Your task to perform on an android device: turn off picture-in-picture Image 0: 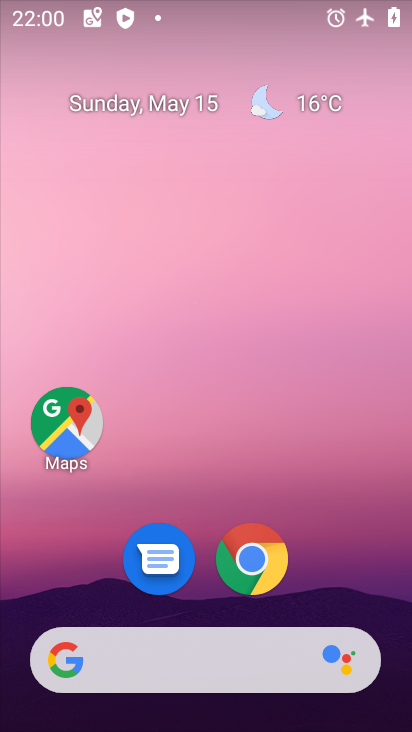
Step 0: drag from (275, 448) to (151, 90)
Your task to perform on an android device: turn off picture-in-picture Image 1: 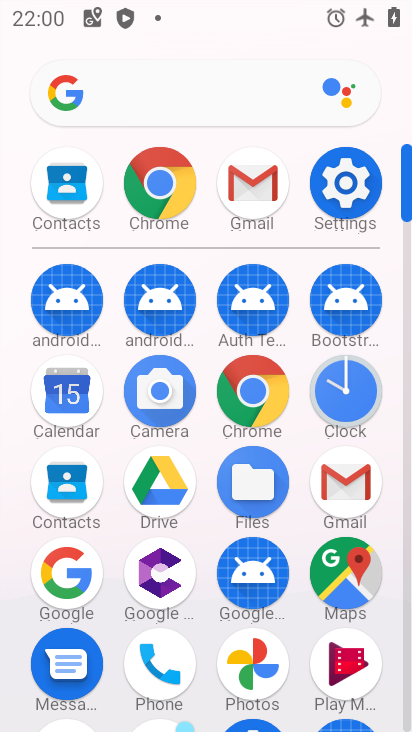
Step 1: click (346, 186)
Your task to perform on an android device: turn off picture-in-picture Image 2: 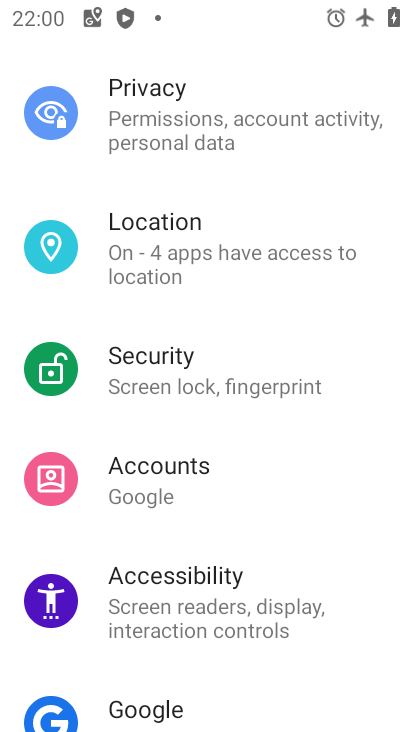
Step 2: drag from (232, 461) to (192, 238)
Your task to perform on an android device: turn off picture-in-picture Image 3: 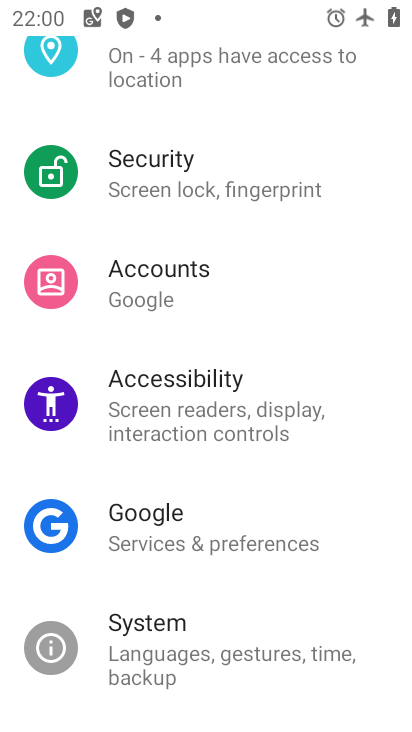
Step 3: drag from (241, 480) to (170, 189)
Your task to perform on an android device: turn off picture-in-picture Image 4: 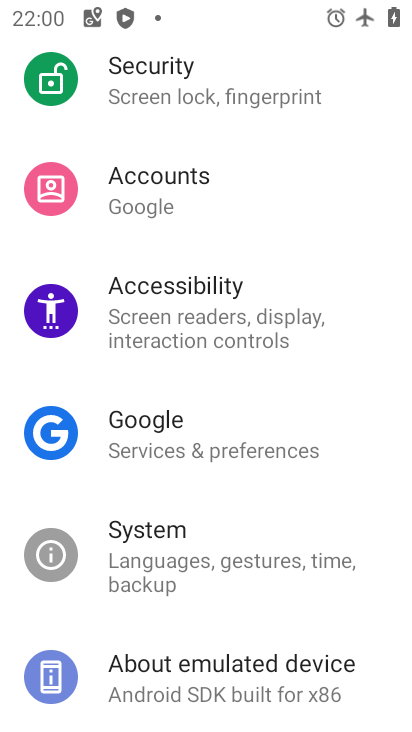
Step 4: drag from (211, 241) to (245, 690)
Your task to perform on an android device: turn off picture-in-picture Image 5: 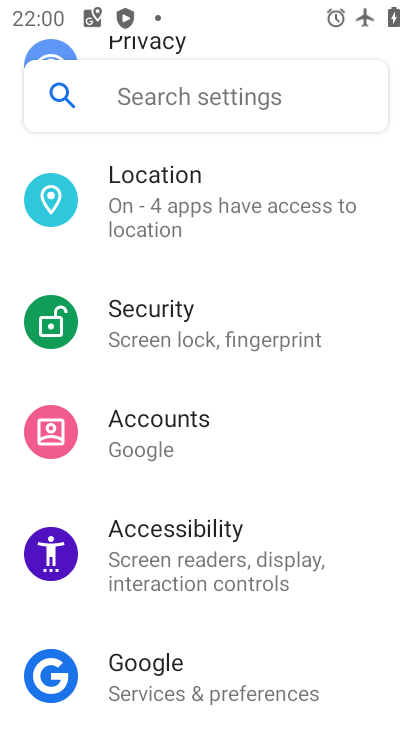
Step 5: drag from (185, 717) to (9, 624)
Your task to perform on an android device: turn off picture-in-picture Image 6: 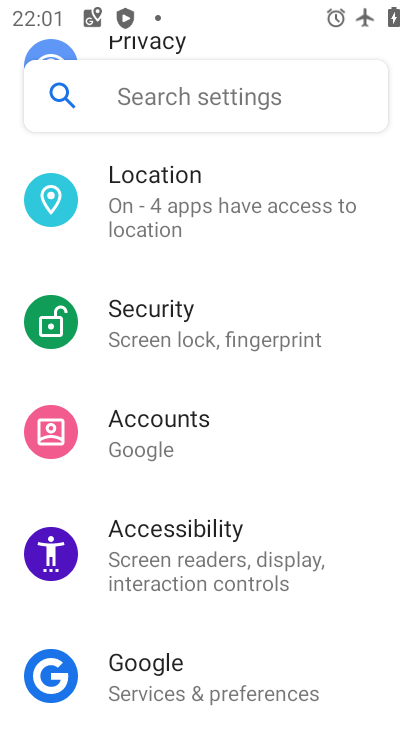
Step 6: drag from (246, 272) to (238, 723)
Your task to perform on an android device: turn off picture-in-picture Image 7: 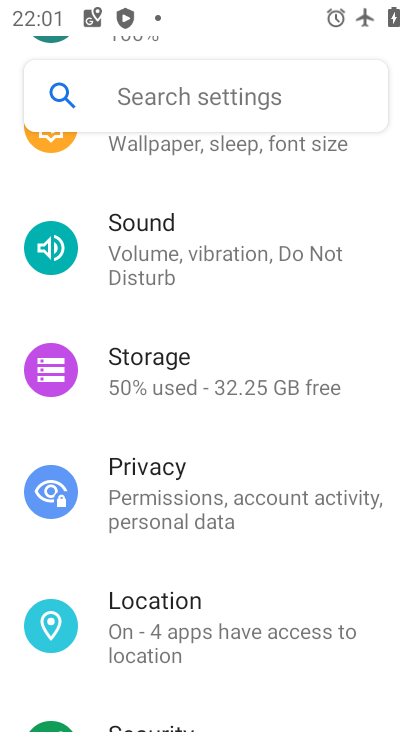
Step 7: drag from (219, 312) to (193, 705)
Your task to perform on an android device: turn off picture-in-picture Image 8: 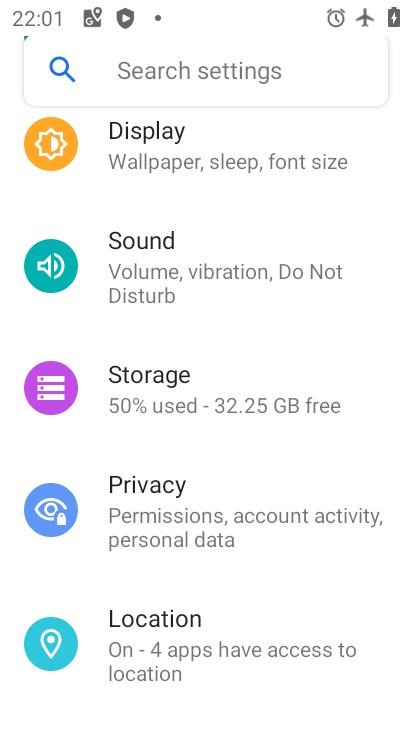
Step 8: drag from (205, 201) to (150, 688)
Your task to perform on an android device: turn off picture-in-picture Image 9: 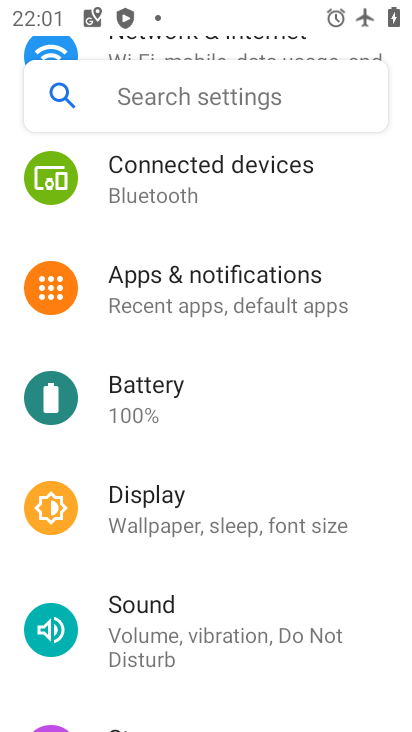
Step 9: click (186, 270)
Your task to perform on an android device: turn off picture-in-picture Image 10: 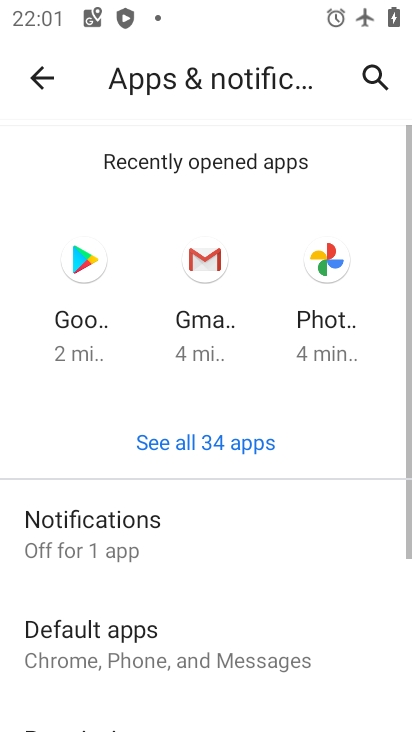
Step 10: drag from (170, 554) to (101, 197)
Your task to perform on an android device: turn off picture-in-picture Image 11: 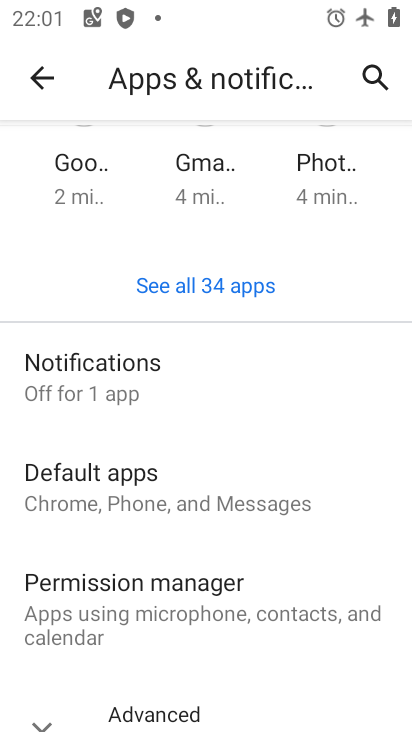
Step 11: drag from (174, 667) to (121, 364)
Your task to perform on an android device: turn off picture-in-picture Image 12: 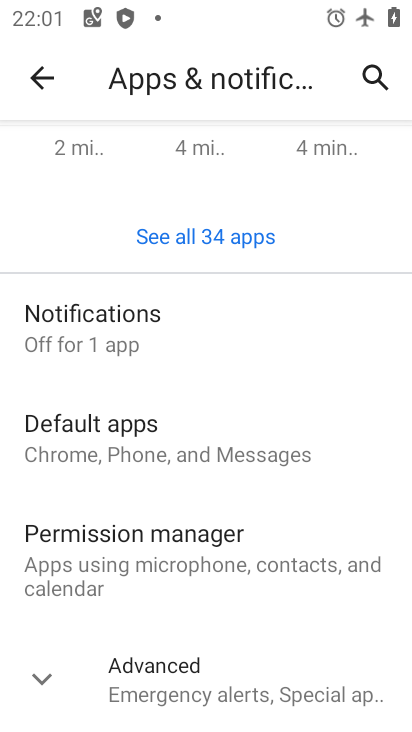
Step 12: click (53, 671)
Your task to perform on an android device: turn off picture-in-picture Image 13: 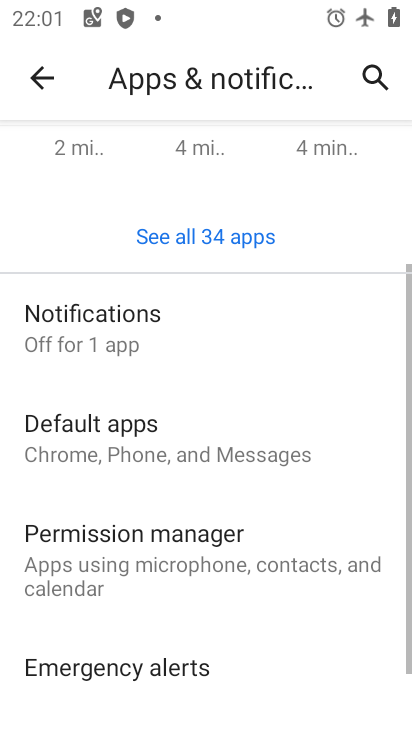
Step 13: drag from (260, 599) to (222, 338)
Your task to perform on an android device: turn off picture-in-picture Image 14: 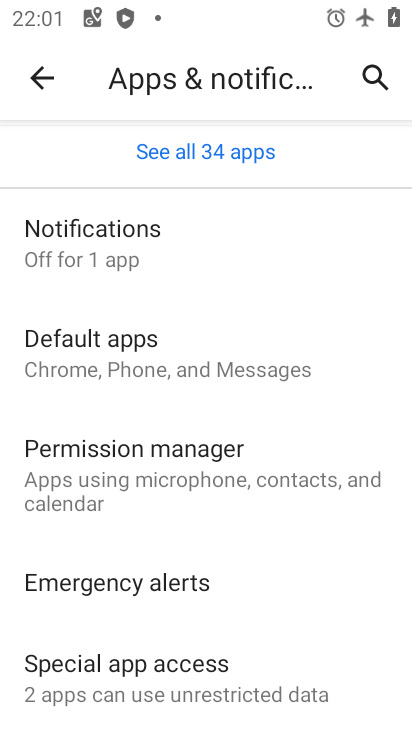
Step 14: click (139, 665)
Your task to perform on an android device: turn off picture-in-picture Image 15: 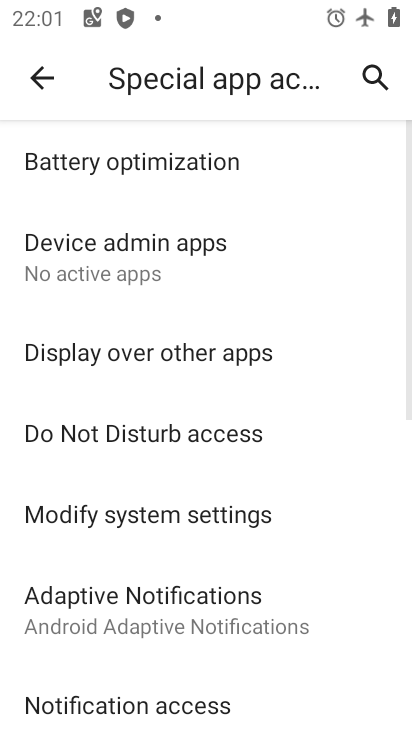
Step 15: drag from (199, 562) to (158, 231)
Your task to perform on an android device: turn off picture-in-picture Image 16: 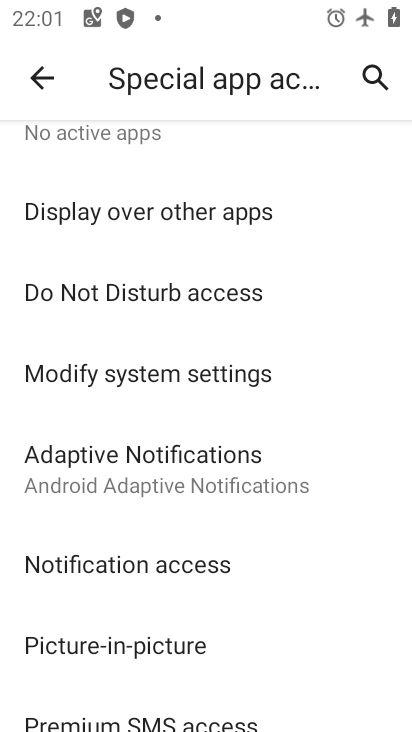
Step 16: click (135, 650)
Your task to perform on an android device: turn off picture-in-picture Image 17: 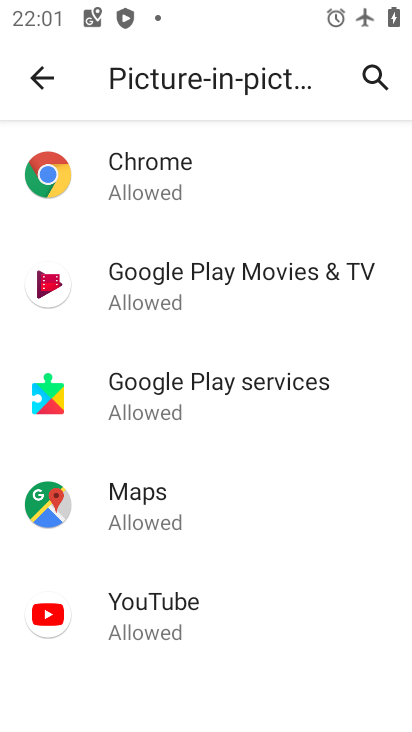
Step 17: click (143, 179)
Your task to perform on an android device: turn off picture-in-picture Image 18: 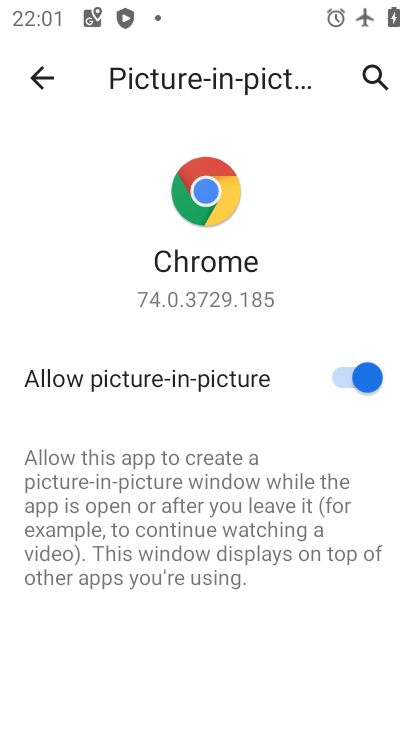
Step 18: click (364, 364)
Your task to perform on an android device: turn off picture-in-picture Image 19: 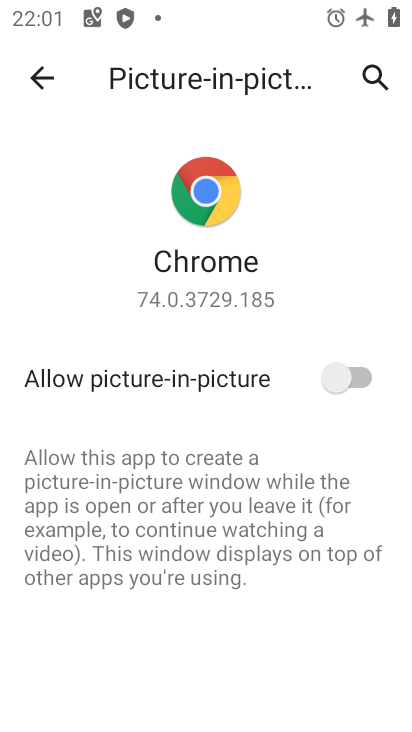
Step 19: click (46, 82)
Your task to perform on an android device: turn off picture-in-picture Image 20: 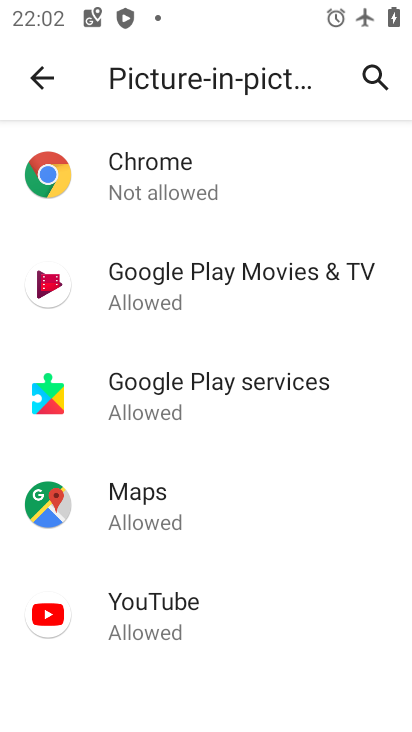
Step 20: click (165, 268)
Your task to perform on an android device: turn off picture-in-picture Image 21: 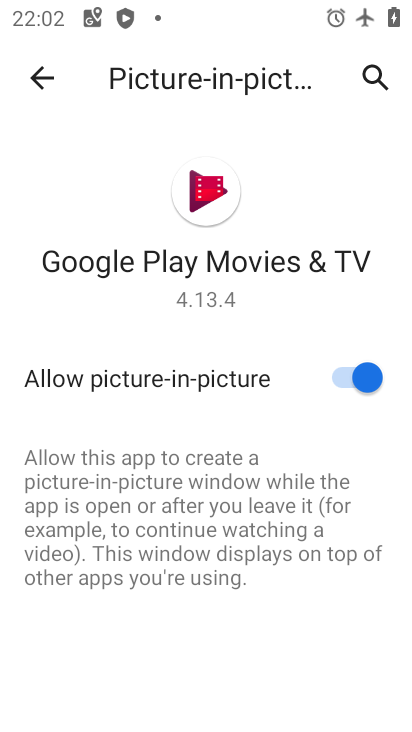
Step 21: click (364, 381)
Your task to perform on an android device: turn off picture-in-picture Image 22: 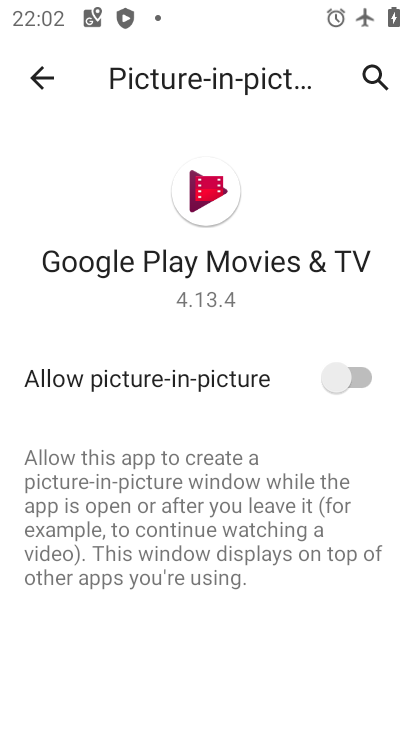
Step 22: click (46, 79)
Your task to perform on an android device: turn off picture-in-picture Image 23: 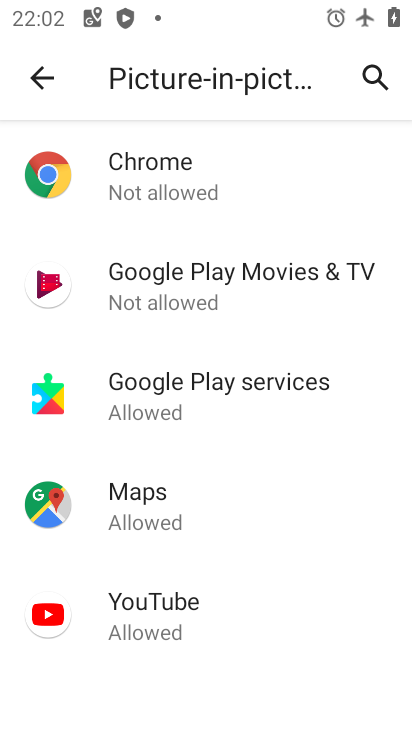
Step 23: click (163, 403)
Your task to perform on an android device: turn off picture-in-picture Image 24: 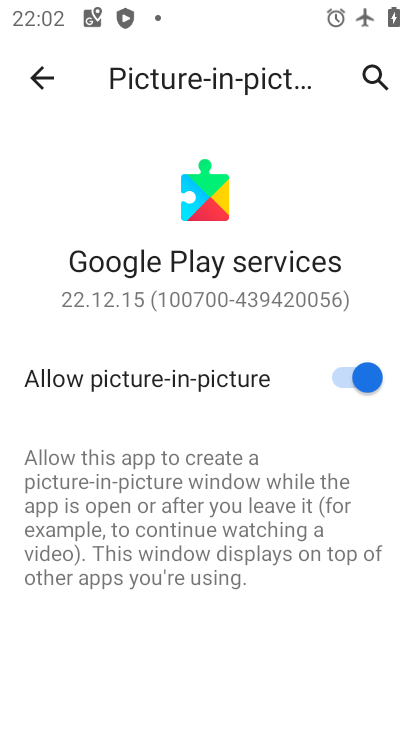
Step 24: click (364, 379)
Your task to perform on an android device: turn off picture-in-picture Image 25: 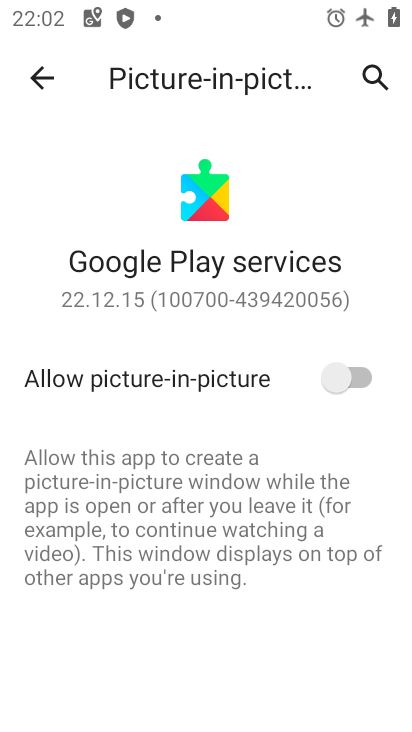
Step 25: click (51, 66)
Your task to perform on an android device: turn off picture-in-picture Image 26: 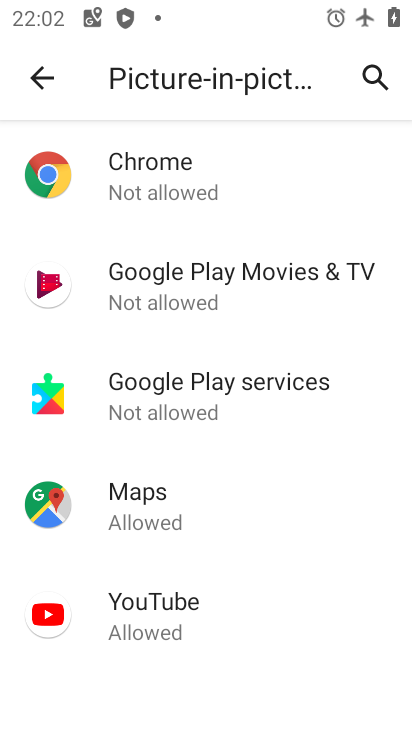
Step 26: click (136, 499)
Your task to perform on an android device: turn off picture-in-picture Image 27: 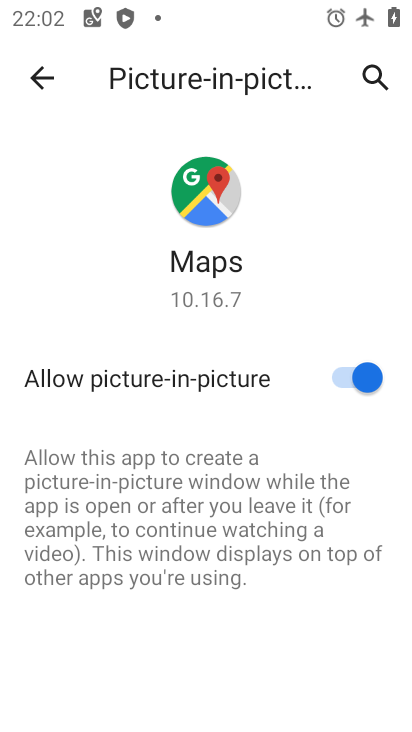
Step 27: click (364, 378)
Your task to perform on an android device: turn off picture-in-picture Image 28: 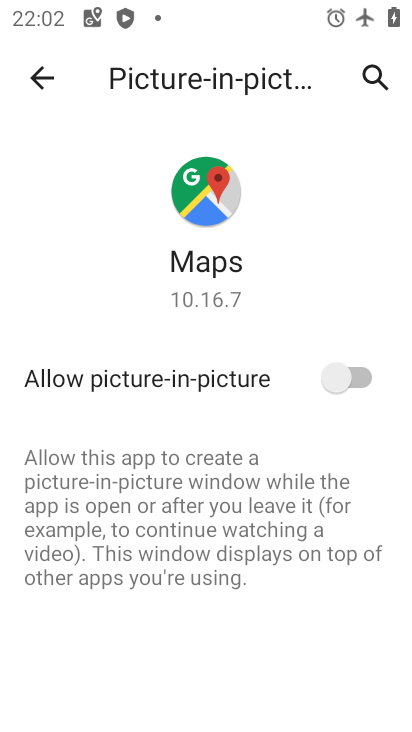
Step 28: click (42, 81)
Your task to perform on an android device: turn off picture-in-picture Image 29: 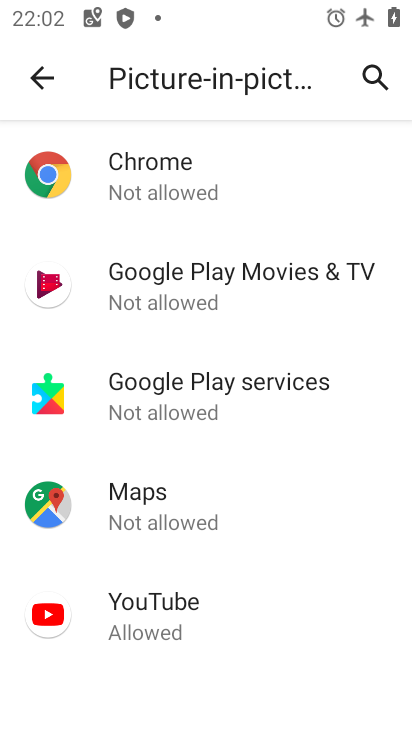
Step 29: click (156, 618)
Your task to perform on an android device: turn off picture-in-picture Image 30: 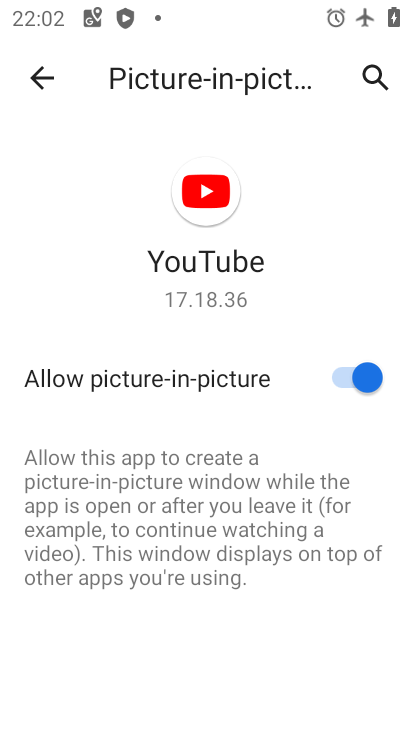
Step 30: click (360, 375)
Your task to perform on an android device: turn off picture-in-picture Image 31: 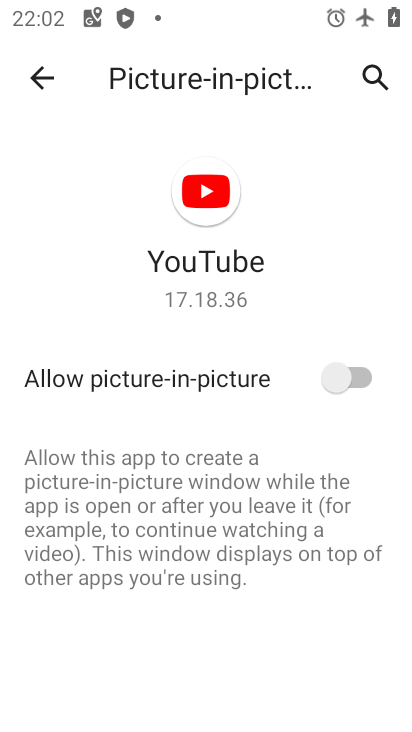
Step 31: click (39, 73)
Your task to perform on an android device: turn off picture-in-picture Image 32: 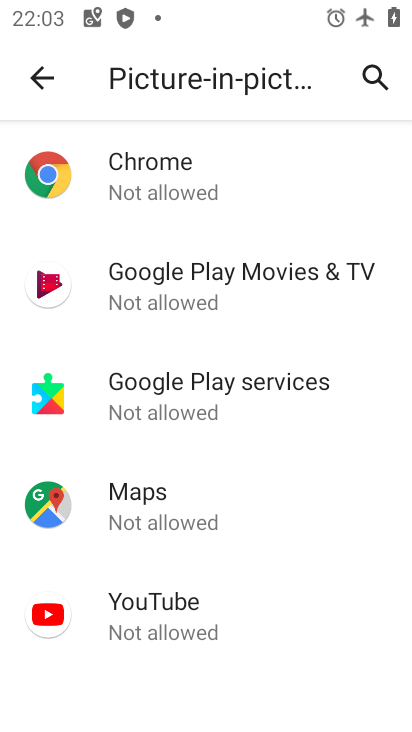
Step 32: task complete